Your task to perform on an android device: Open the Play Movies app and select the watchlist tab. Image 0: 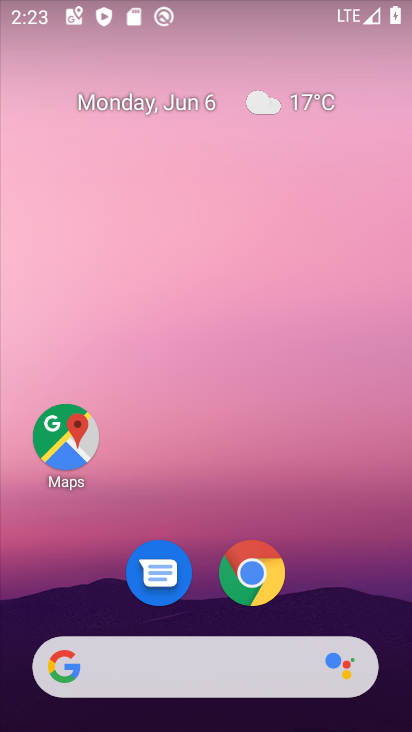
Step 0: drag from (369, 578) to (382, 162)
Your task to perform on an android device: Open the Play Movies app and select the watchlist tab. Image 1: 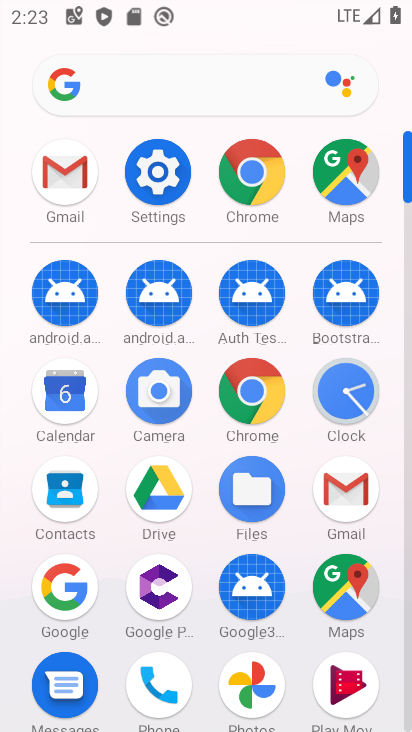
Step 1: click (347, 677)
Your task to perform on an android device: Open the Play Movies app and select the watchlist tab. Image 2: 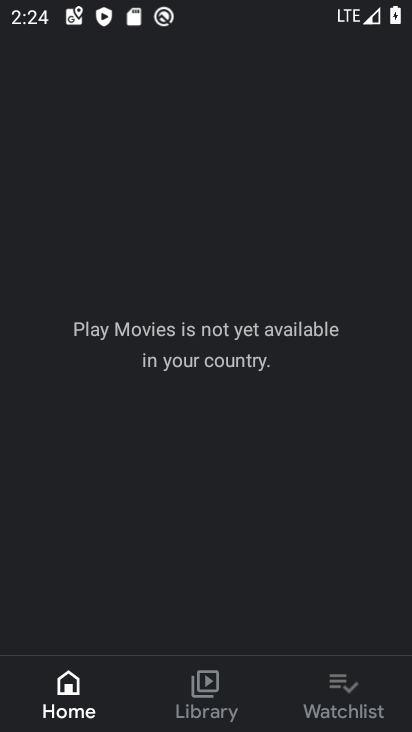
Step 2: click (339, 696)
Your task to perform on an android device: Open the Play Movies app and select the watchlist tab. Image 3: 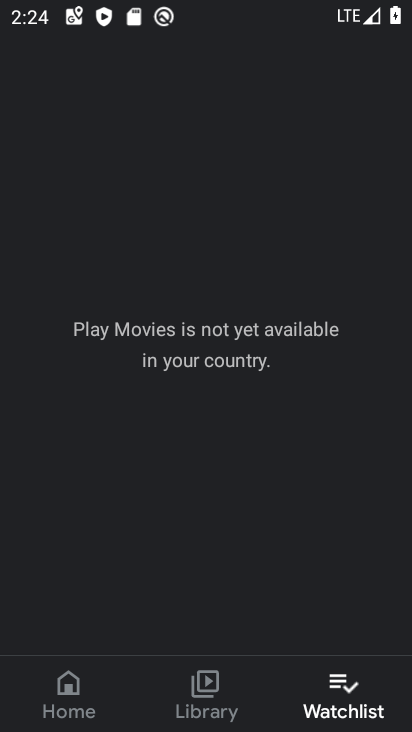
Step 3: task complete